Your task to perform on an android device: turn off notifications settings in the gmail app Image 0: 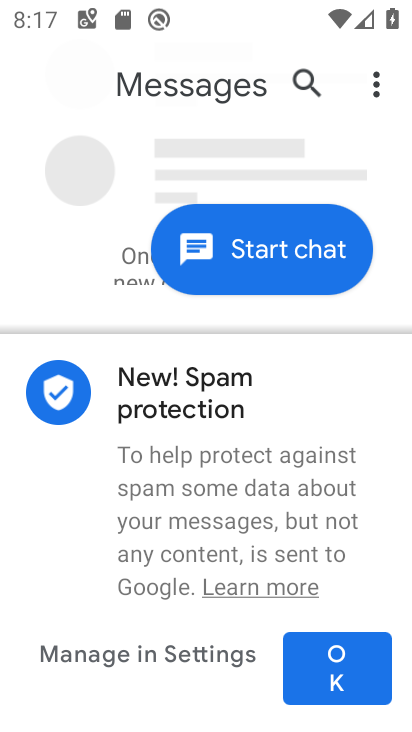
Step 0: press home button
Your task to perform on an android device: turn off notifications settings in the gmail app Image 1: 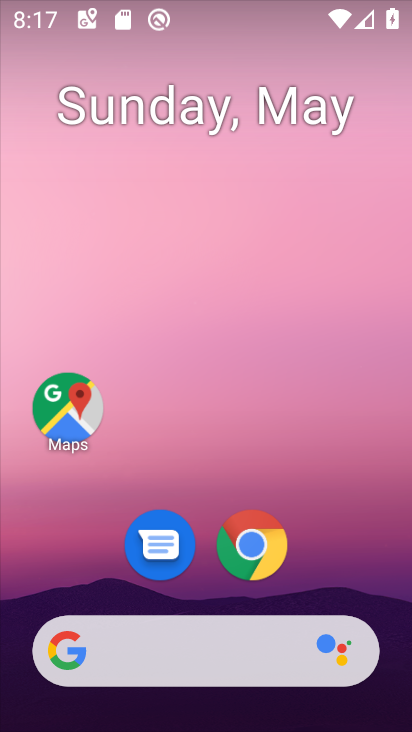
Step 1: drag from (98, 607) to (166, 147)
Your task to perform on an android device: turn off notifications settings in the gmail app Image 2: 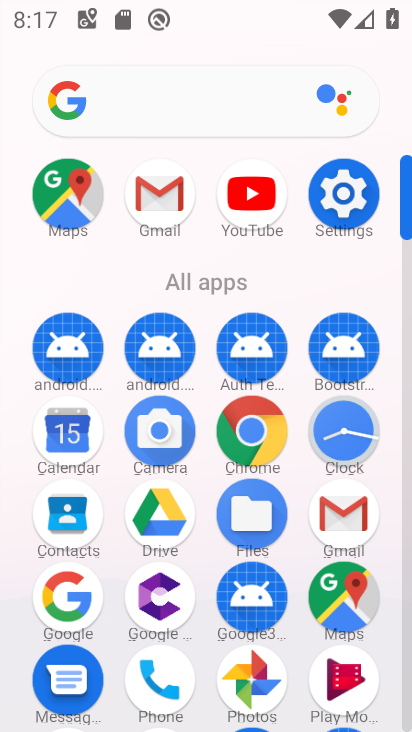
Step 2: click (339, 527)
Your task to perform on an android device: turn off notifications settings in the gmail app Image 3: 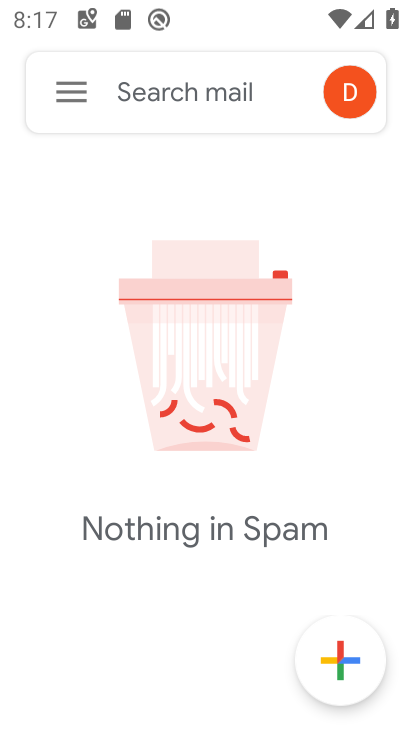
Step 3: click (82, 103)
Your task to perform on an android device: turn off notifications settings in the gmail app Image 4: 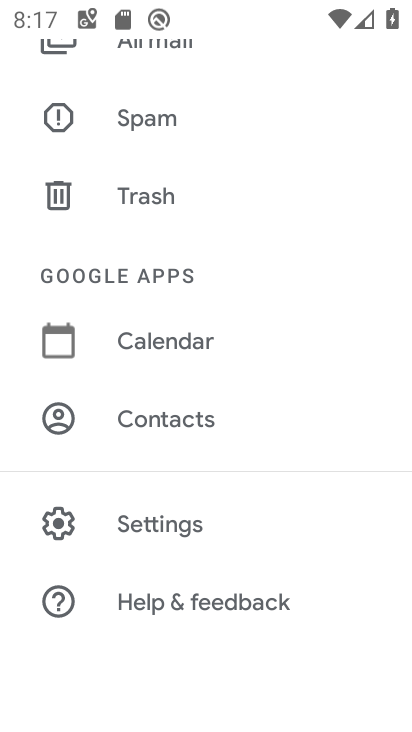
Step 4: drag from (162, 481) to (229, 270)
Your task to perform on an android device: turn off notifications settings in the gmail app Image 5: 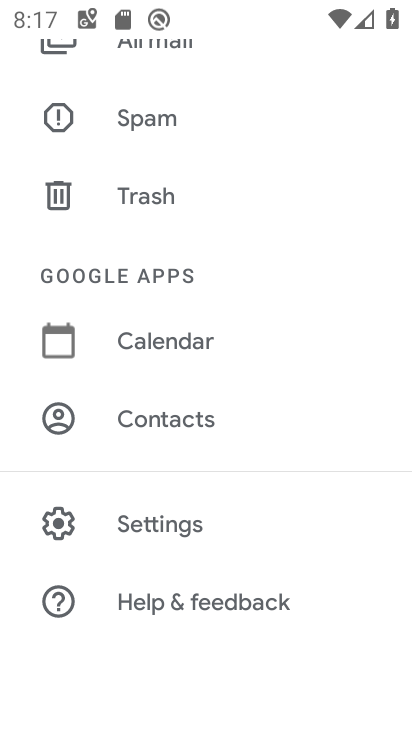
Step 5: click (228, 529)
Your task to perform on an android device: turn off notifications settings in the gmail app Image 6: 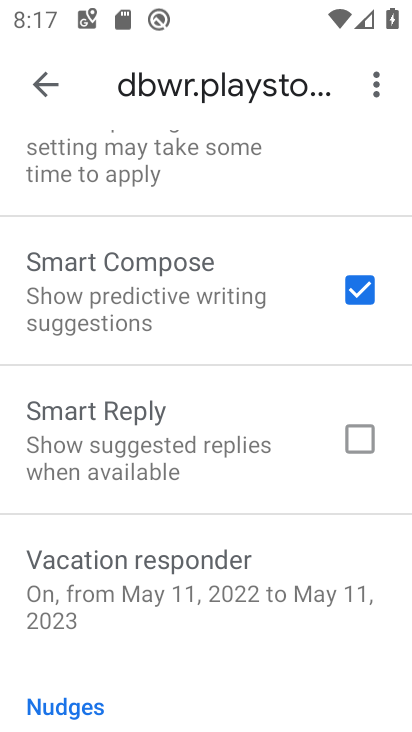
Step 6: drag from (169, 570) to (222, 364)
Your task to perform on an android device: turn off notifications settings in the gmail app Image 7: 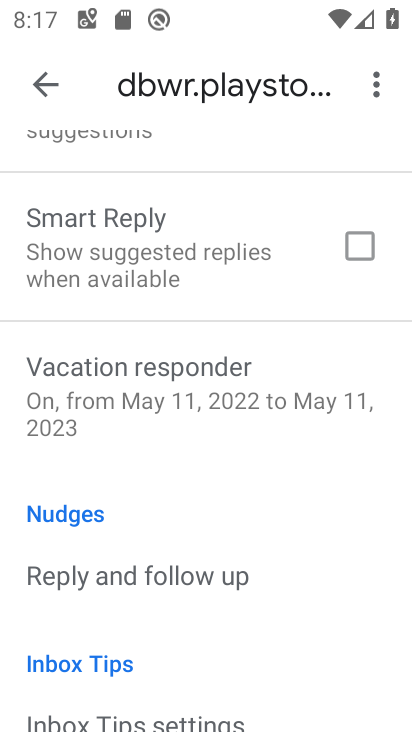
Step 7: drag from (176, 626) to (226, 297)
Your task to perform on an android device: turn off notifications settings in the gmail app Image 8: 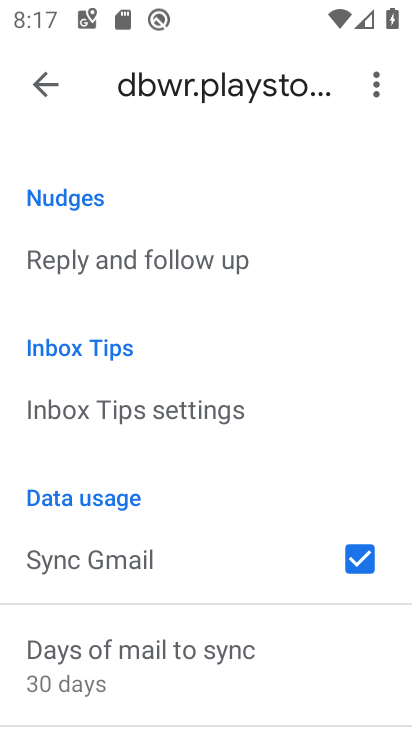
Step 8: drag from (151, 591) to (167, 682)
Your task to perform on an android device: turn off notifications settings in the gmail app Image 9: 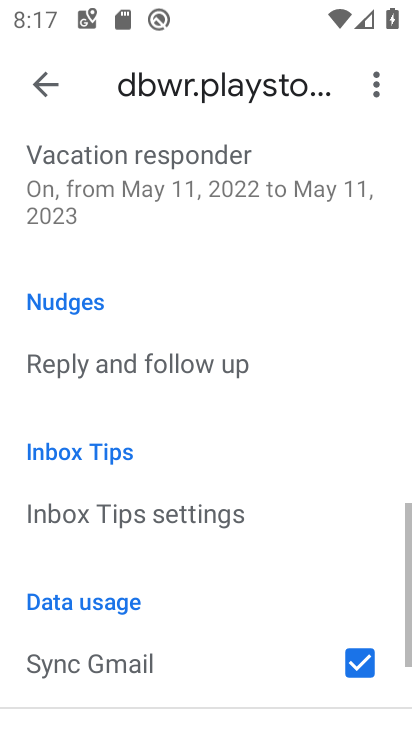
Step 9: drag from (236, 298) to (176, 659)
Your task to perform on an android device: turn off notifications settings in the gmail app Image 10: 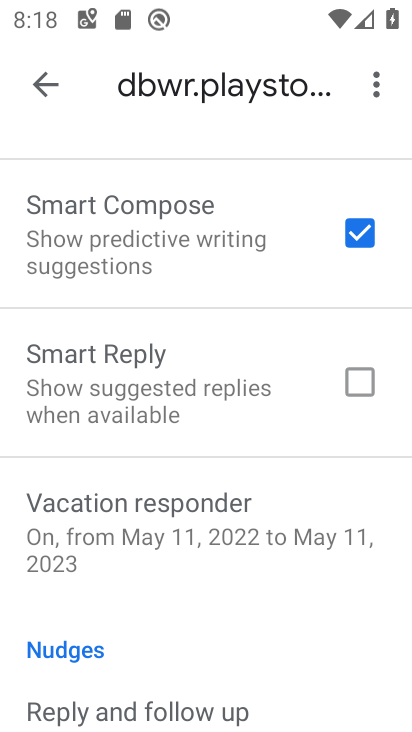
Step 10: drag from (204, 322) to (167, 551)
Your task to perform on an android device: turn off notifications settings in the gmail app Image 11: 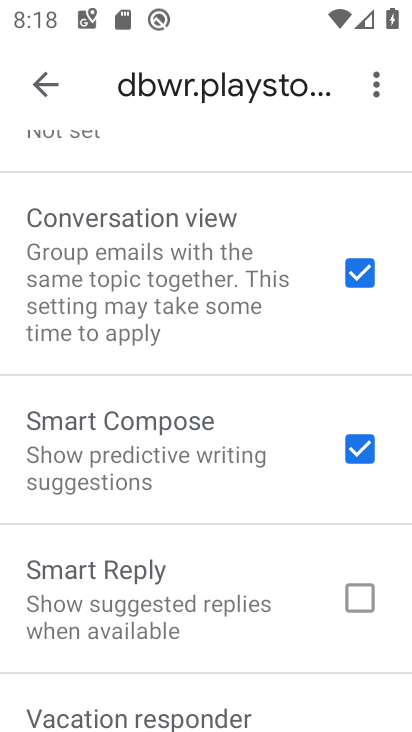
Step 11: drag from (174, 263) to (131, 625)
Your task to perform on an android device: turn off notifications settings in the gmail app Image 12: 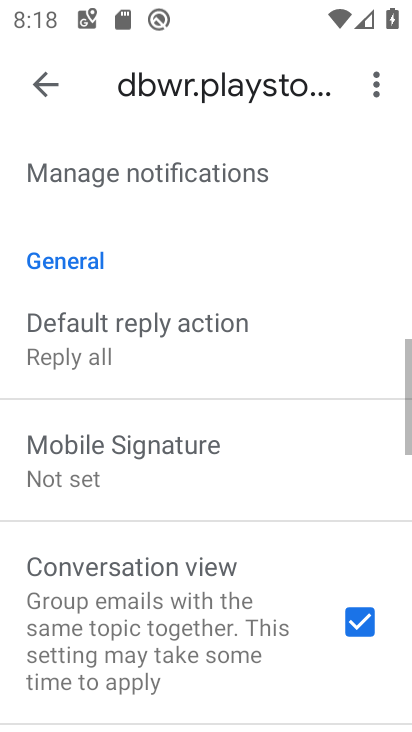
Step 12: drag from (187, 341) to (149, 574)
Your task to perform on an android device: turn off notifications settings in the gmail app Image 13: 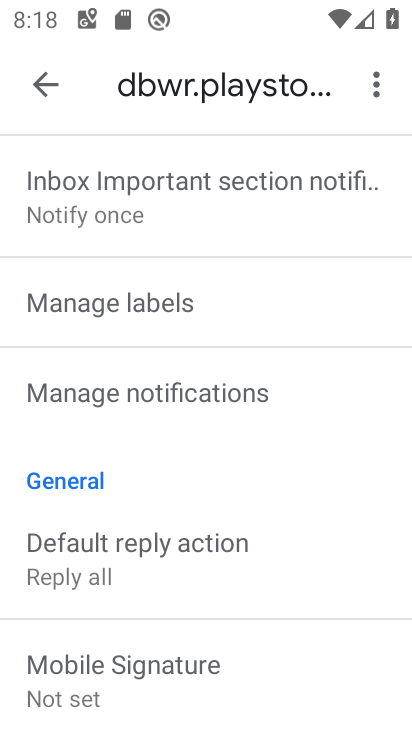
Step 13: drag from (186, 311) to (163, 547)
Your task to perform on an android device: turn off notifications settings in the gmail app Image 14: 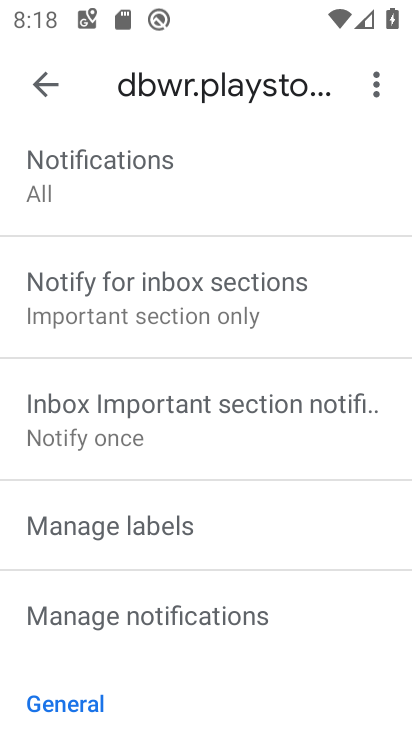
Step 14: click (149, 623)
Your task to perform on an android device: turn off notifications settings in the gmail app Image 15: 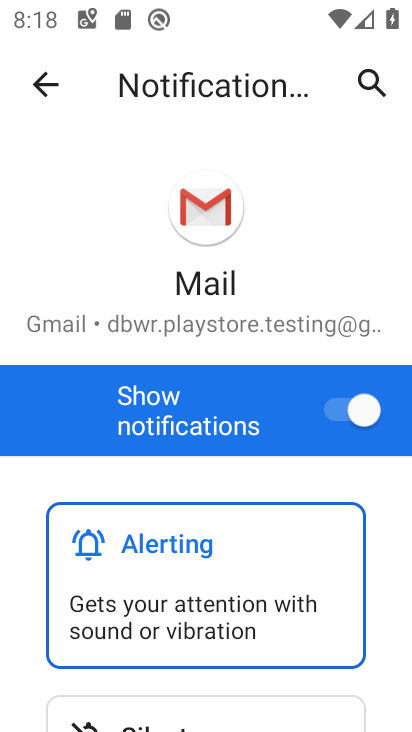
Step 15: click (353, 405)
Your task to perform on an android device: turn off notifications settings in the gmail app Image 16: 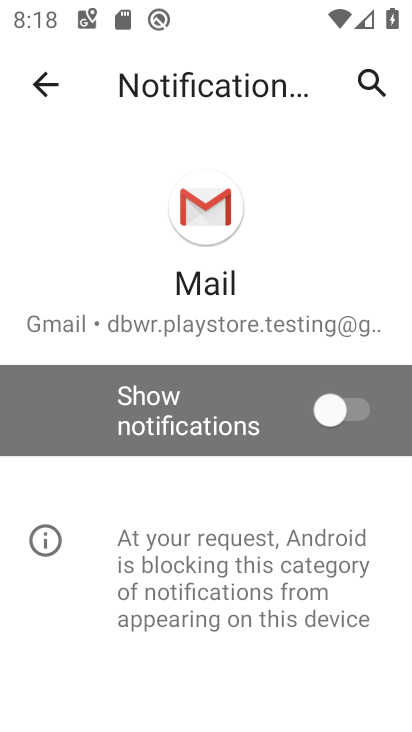
Step 16: task complete